Your task to perform on an android device: Go to Amazon Image 0: 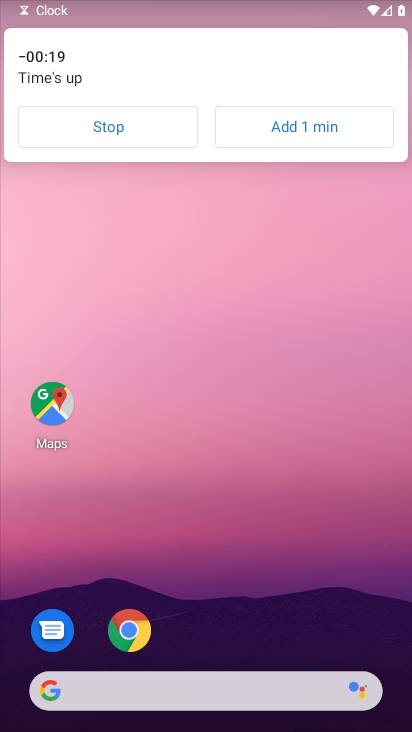
Step 0: click (129, 648)
Your task to perform on an android device: Go to Amazon Image 1: 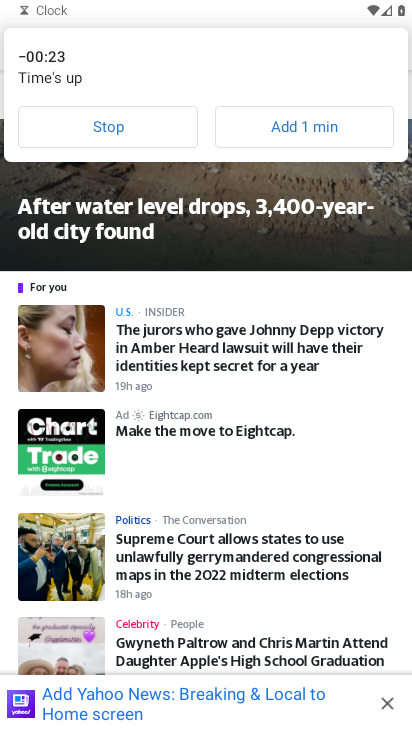
Step 1: click (163, 131)
Your task to perform on an android device: Go to Amazon Image 2: 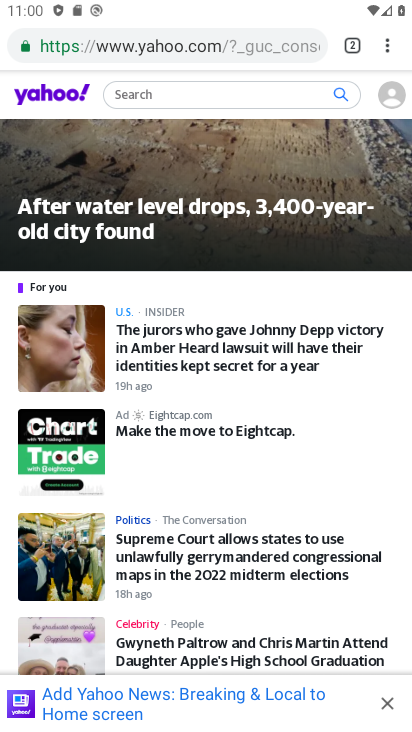
Step 2: click (136, 47)
Your task to perform on an android device: Go to Amazon Image 3: 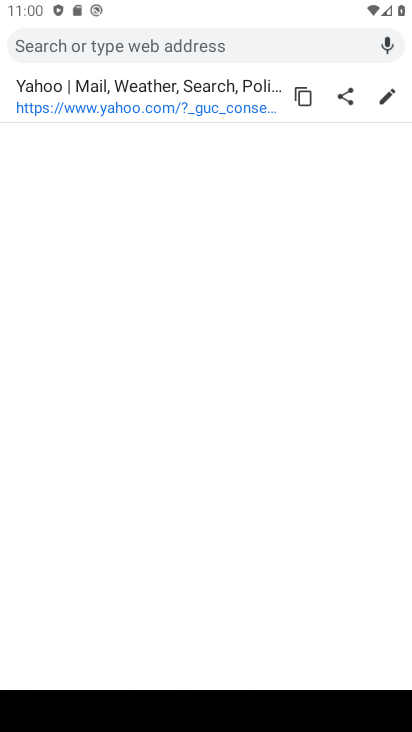
Step 3: type "Amazon"
Your task to perform on an android device: Go to Amazon Image 4: 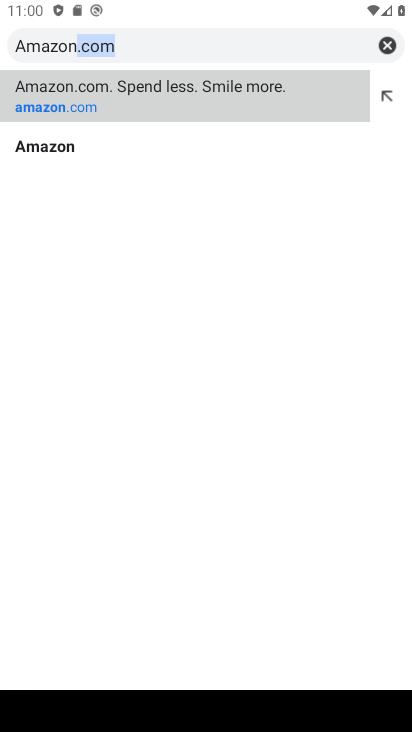
Step 4: click (102, 97)
Your task to perform on an android device: Go to Amazon Image 5: 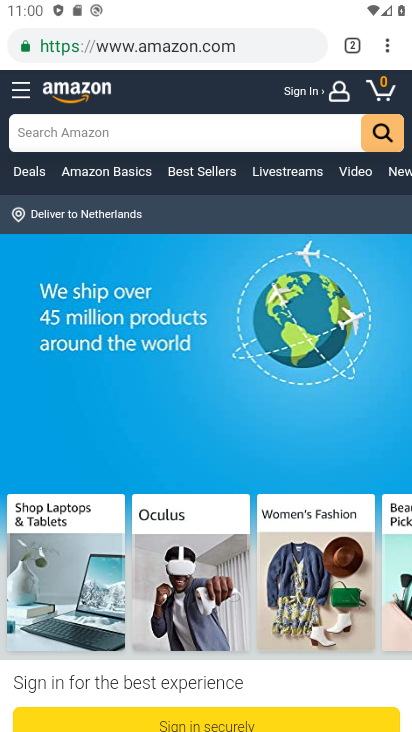
Step 5: task complete